Your task to perform on an android device: Open eBay Image 0: 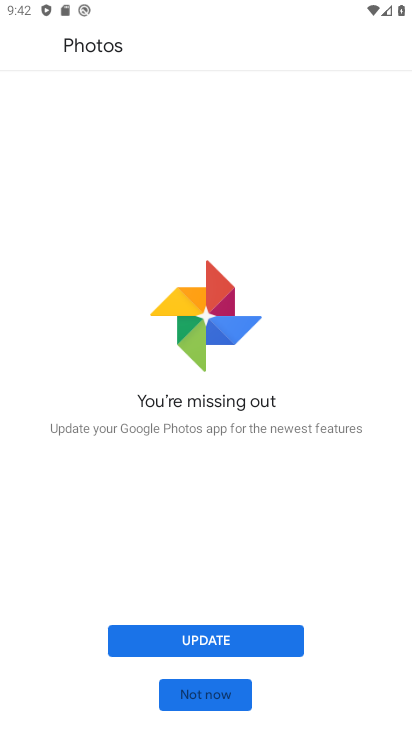
Step 0: press back button
Your task to perform on an android device: Open eBay Image 1: 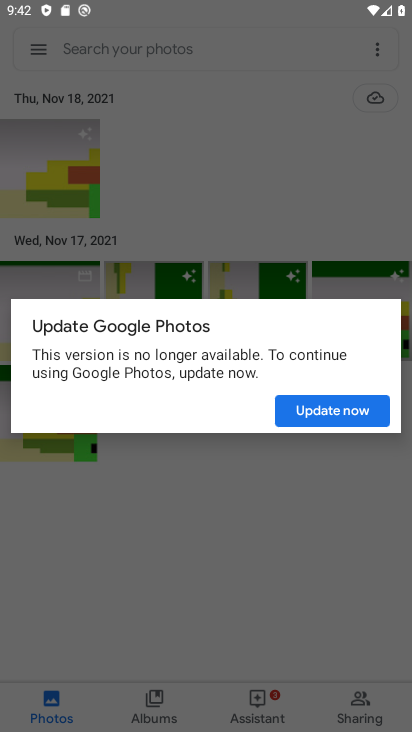
Step 1: press back button
Your task to perform on an android device: Open eBay Image 2: 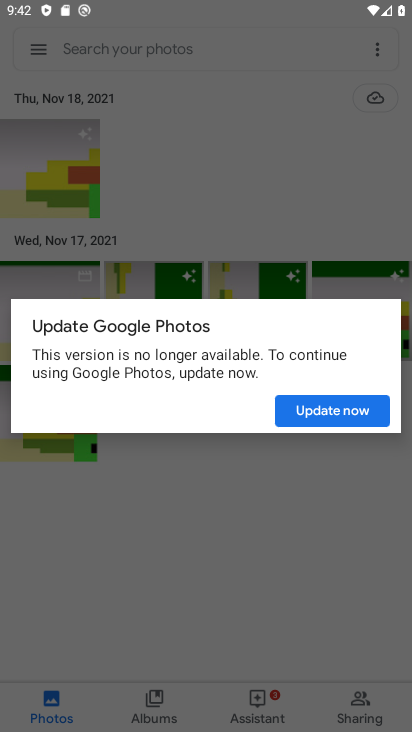
Step 2: press back button
Your task to perform on an android device: Open eBay Image 3: 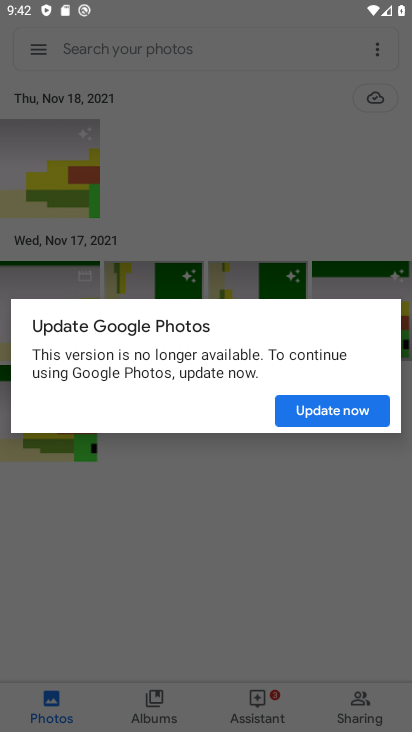
Step 3: press home button
Your task to perform on an android device: Open eBay Image 4: 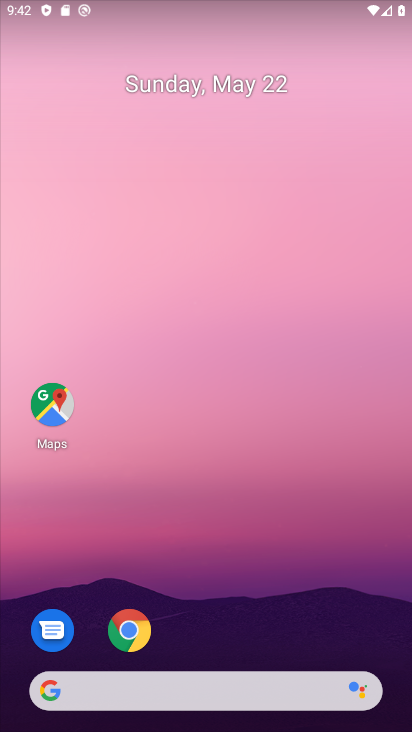
Step 4: click (137, 631)
Your task to perform on an android device: Open eBay Image 5: 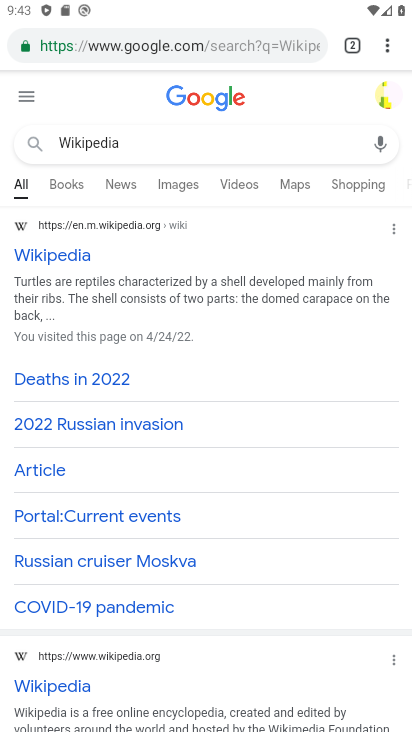
Step 5: click (318, 44)
Your task to perform on an android device: Open eBay Image 6: 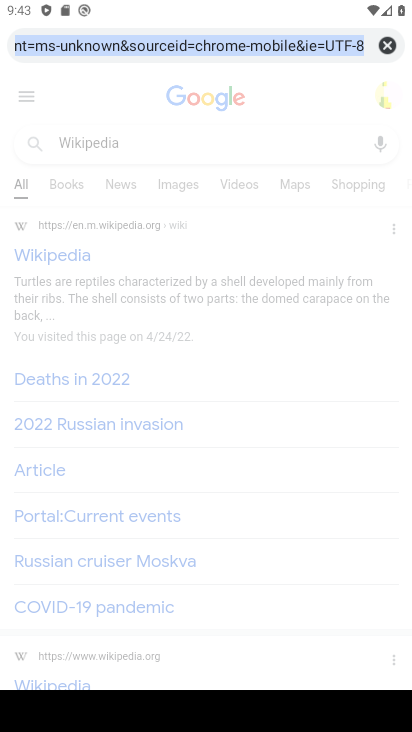
Step 6: click (381, 42)
Your task to perform on an android device: Open eBay Image 7: 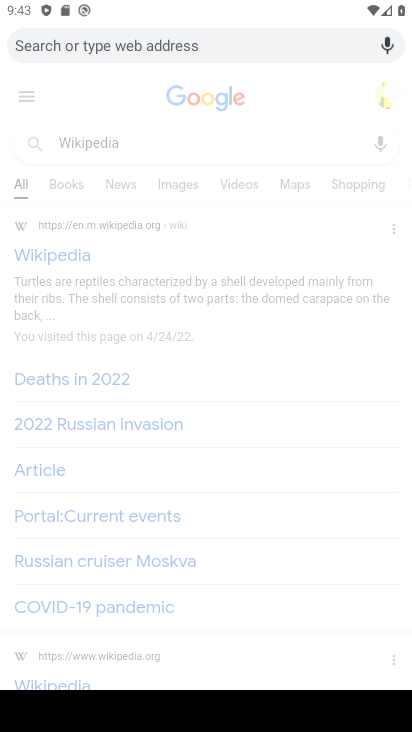
Step 7: type "eBay"
Your task to perform on an android device: Open eBay Image 8: 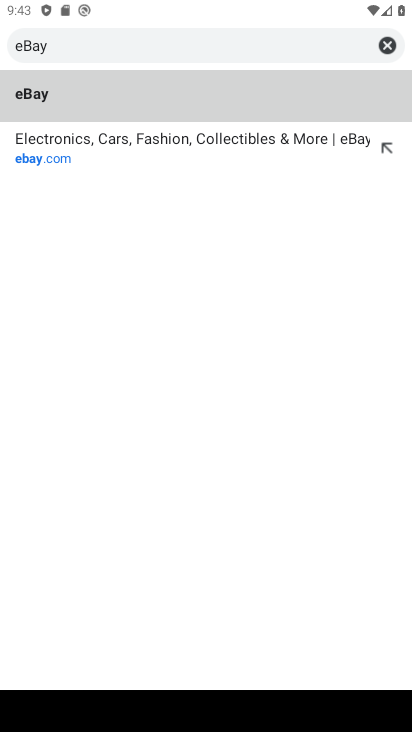
Step 8: click (73, 102)
Your task to perform on an android device: Open eBay Image 9: 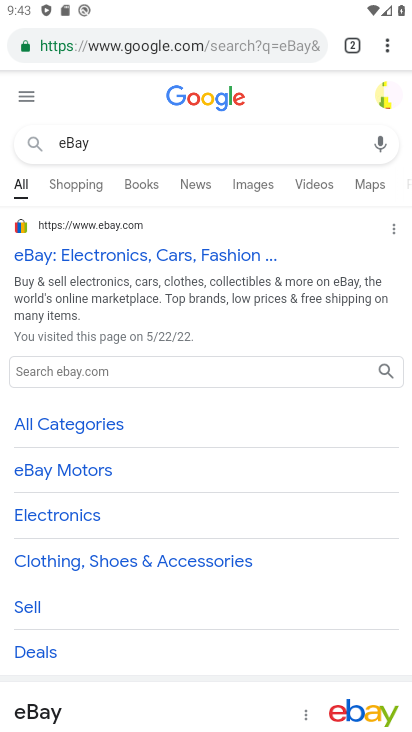
Step 9: task complete